Your task to perform on an android device: Open Reddit.com Image 0: 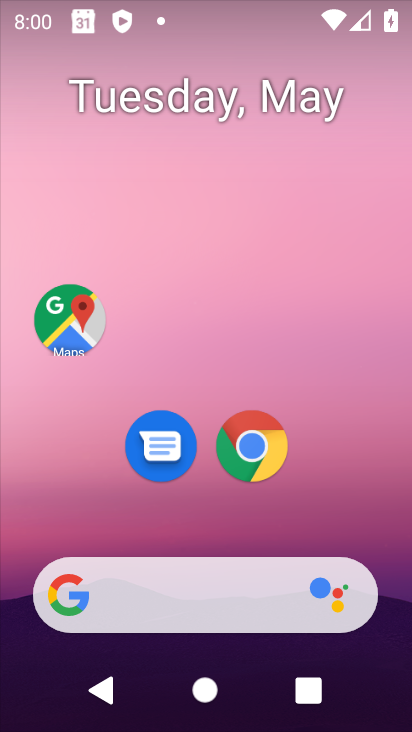
Step 0: click (252, 455)
Your task to perform on an android device: Open Reddit.com Image 1: 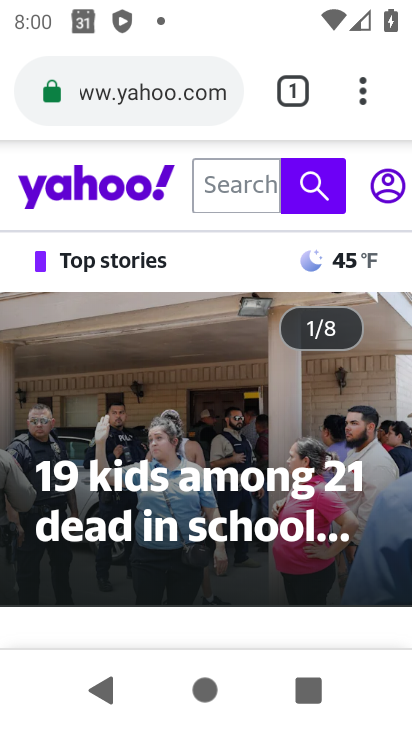
Step 1: click (114, 90)
Your task to perform on an android device: Open Reddit.com Image 2: 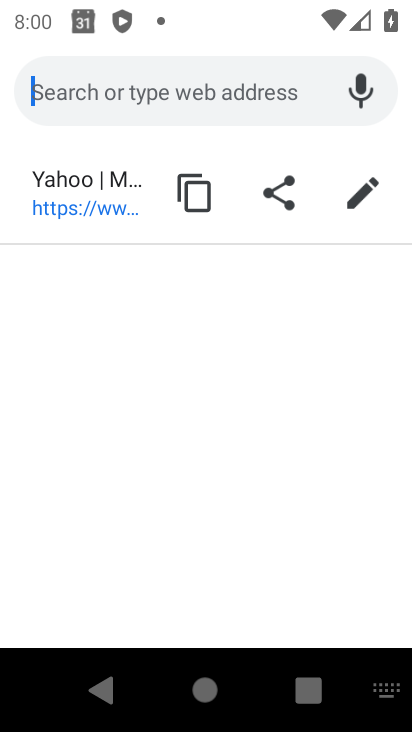
Step 2: type "reddit.com"
Your task to perform on an android device: Open Reddit.com Image 3: 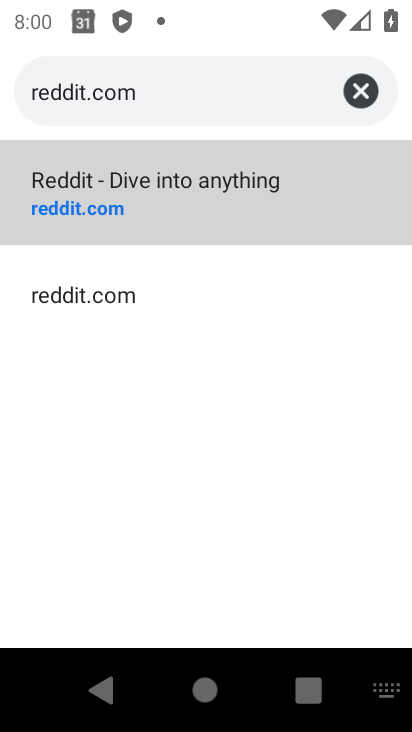
Step 3: click (88, 208)
Your task to perform on an android device: Open Reddit.com Image 4: 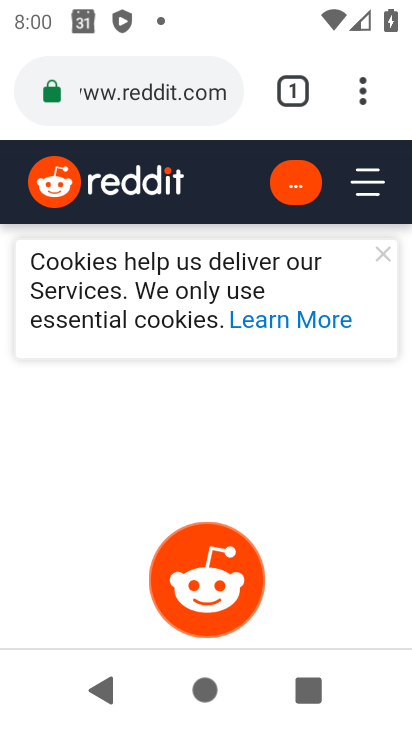
Step 4: task complete